Your task to perform on an android device: check google app version Image 0: 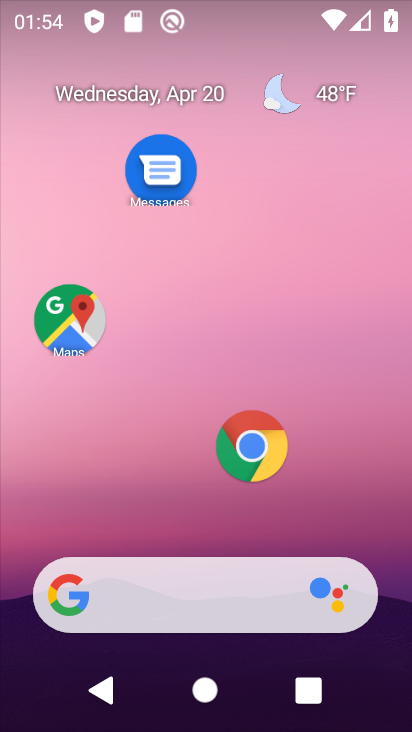
Step 0: drag from (212, 507) to (229, 64)
Your task to perform on an android device: check google app version Image 1: 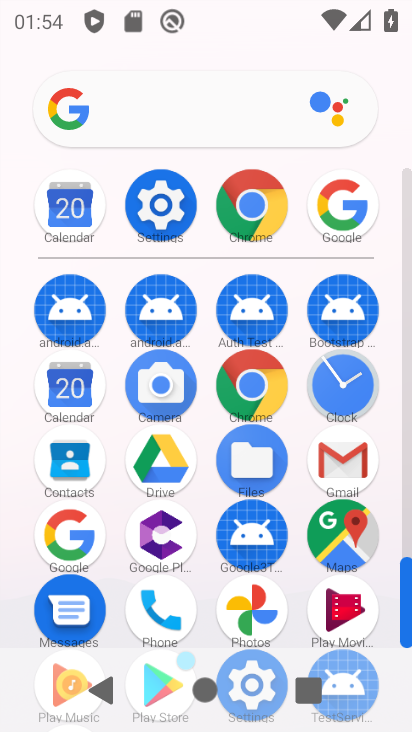
Step 1: click (67, 526)
Your task to perform on an android device: check google app version Image 2: 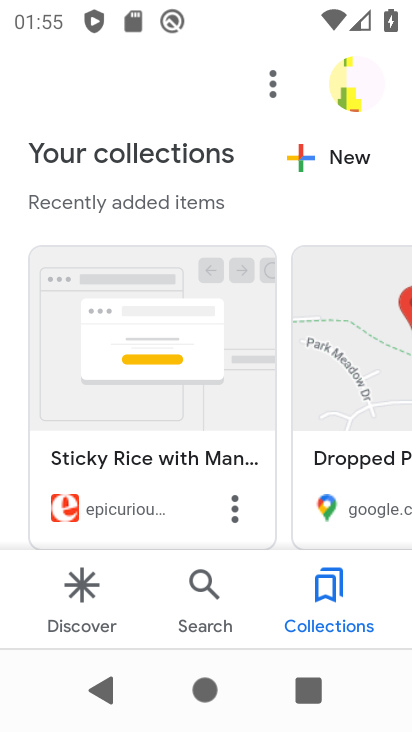
Step 2: click (358, 80)
Your task to perform on an android device: check google app version Image 3: 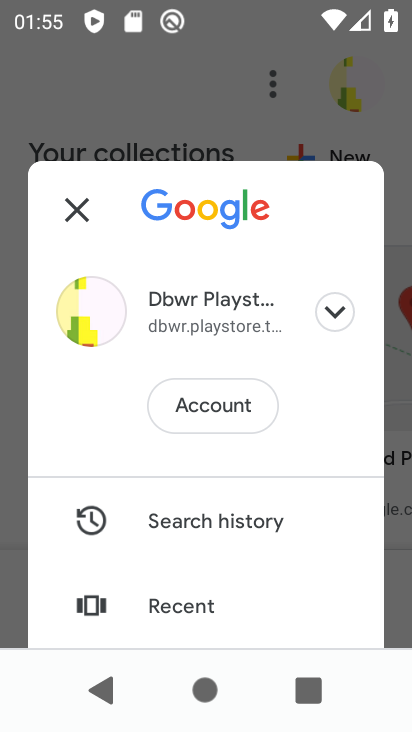
Step 3: drag from (224, 575) to (227, 269)
Your task to perform on an android device: check google app version Image 4: 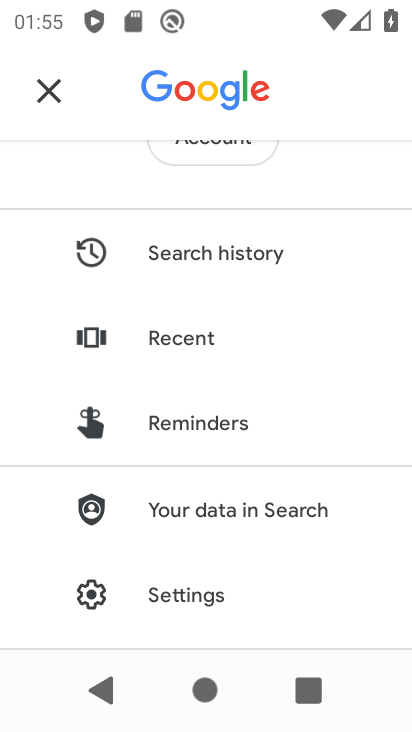
Step 4: click (192, 590)
Your task to perform on an android device: check google app version Image 5: 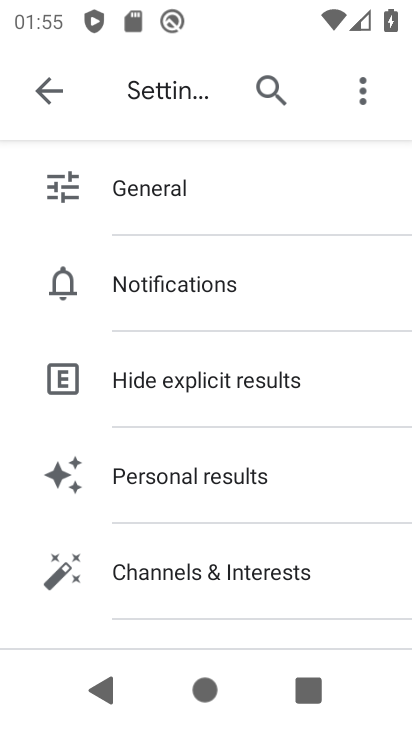
Step 5: drag from (164, 590) to (164, 175)
Your task to perform on an android device: check google app version Image 6: 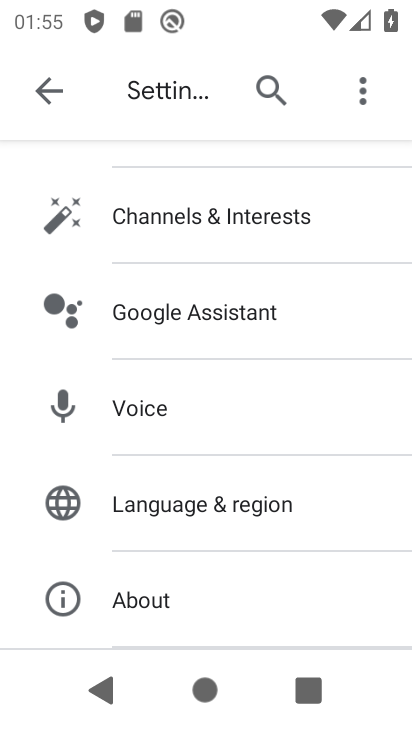
Step 6: click (170, 601)
Your task to perform on an android device: check google app version Image 7: 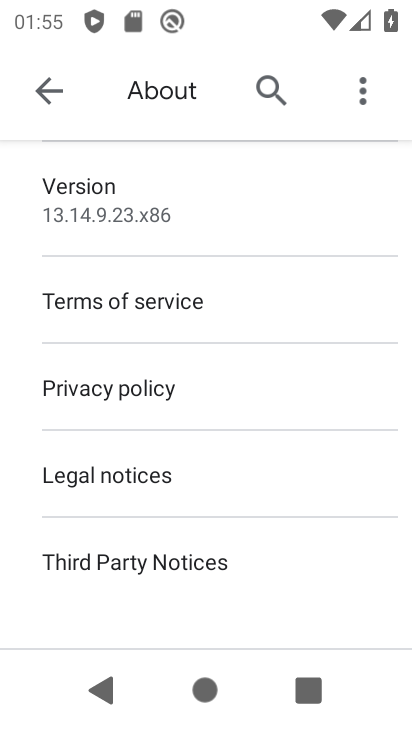
Step 7: task complete